Your task to perform on an android device: turn notification dots on Image 0: 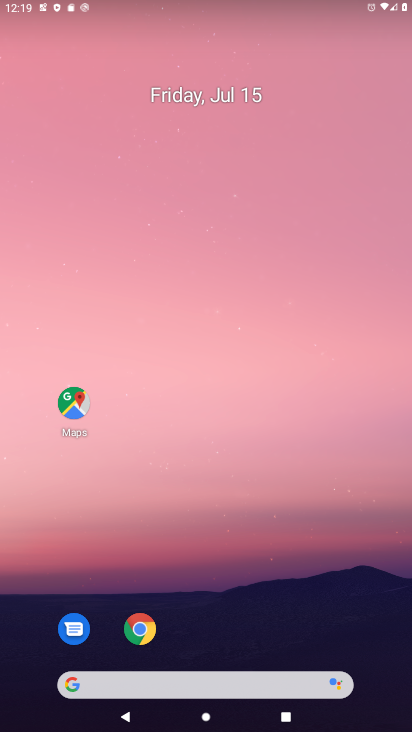
Step 0: press home button
Your task to perform on an android device: turn notification dots on Image 1: 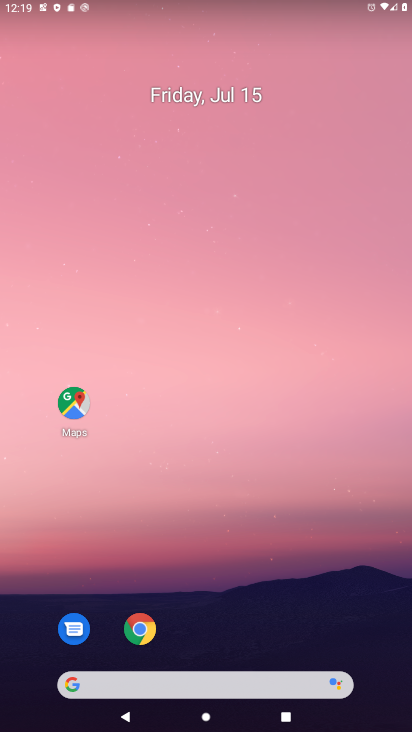
Step 1: drag from (206, 636) to (149, 16)
Your task to perform on an android device: turn notification dots on Image 2: 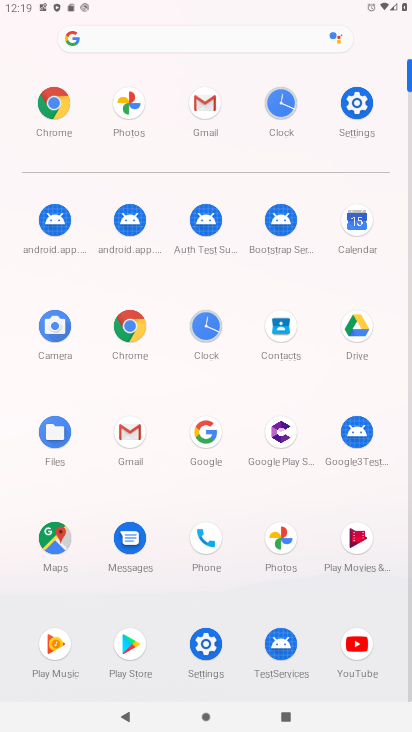
Step 2: click (348, 109)
Your task to perform on an android device: turn notification dots on Image 3: 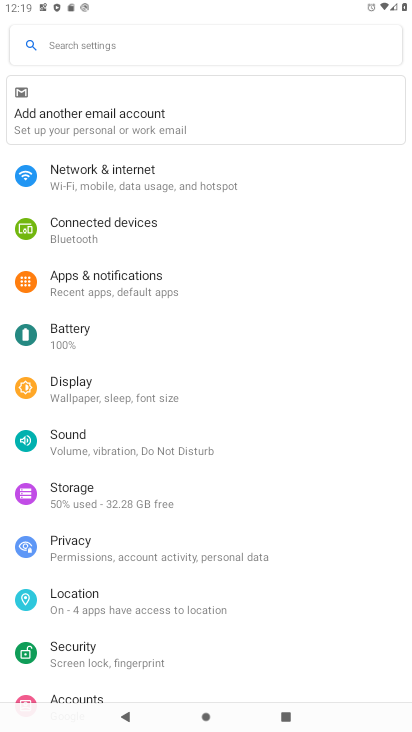
Step 3: click (97, 283)
Your task to perform on an android device: turn notification dots on Image 4: 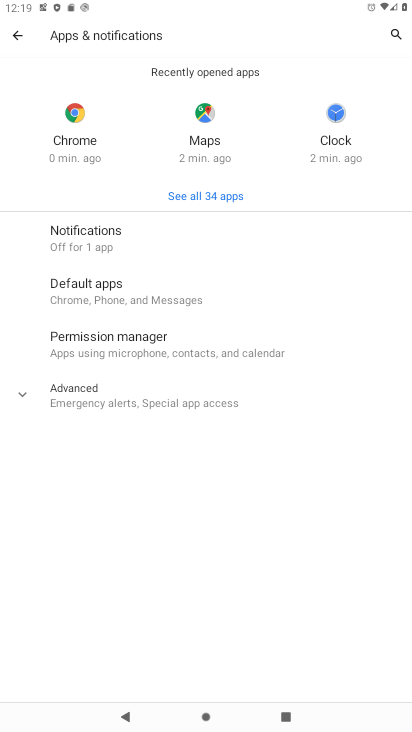
Step 4: click (88, 237)
Your task to perform on an android device: turn notification dots on Image 5: 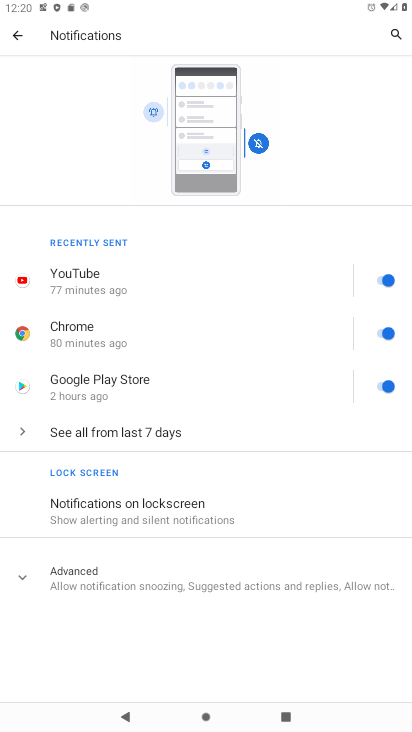
Step 5: click (107, 582)
Your task to perform on an android device: turn notification dots on Image 6: 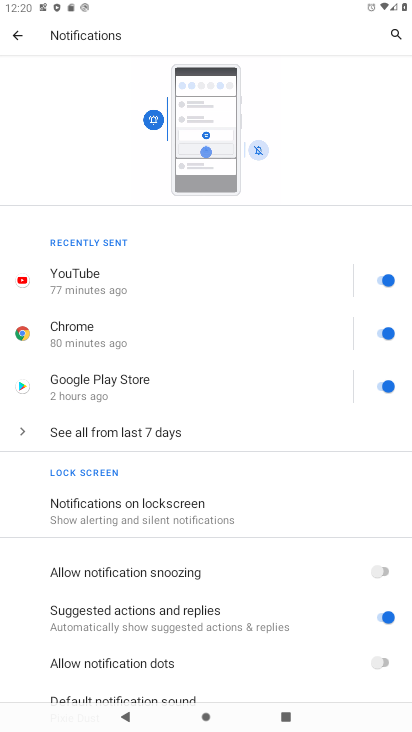
Step 6: drag from (293, 508) to (285, 195)
Your task to perform on an android device: turn notification dots on Image 7: 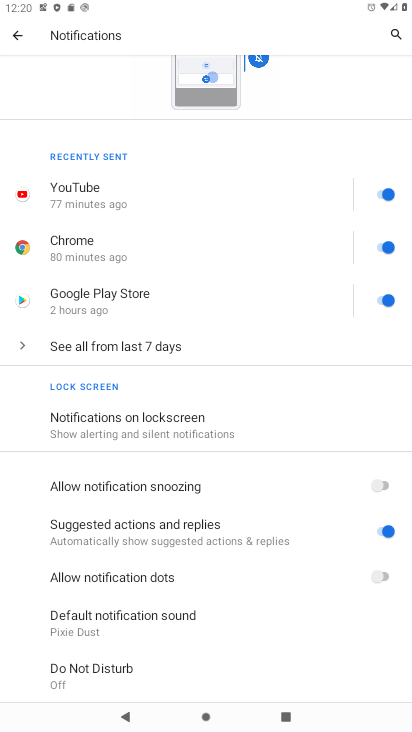
Step 7: click (380, 577)
Your task to perform on an android device: turn notification dots on Image 8: 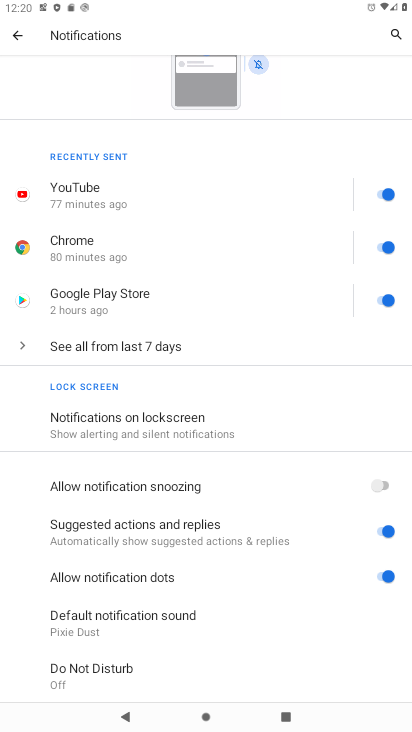
Step 8: task complete